Your task to perform on an android device: View the shopping cart on target.com. Search for "razer kraken" on target.com, select the first entry, add it to the cart, then select checkout. Image 0: 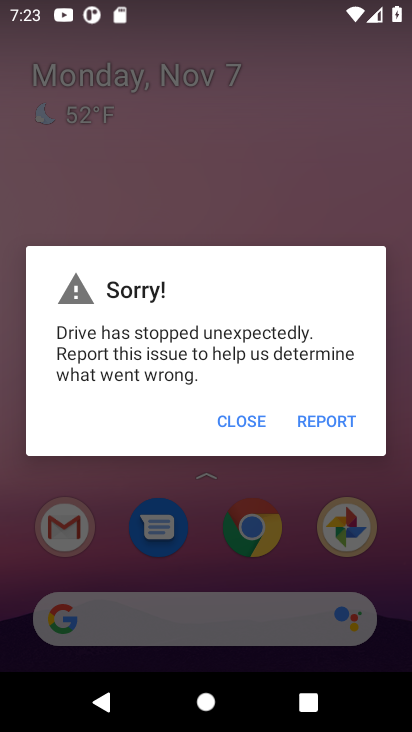
Step 0: click (252, 414)
Your task to perform on an android device: View the shopping cart on target.com. Search for "razer kraken" on target.com, select the first entry, add it to the cart, then select checkout. Image 1: 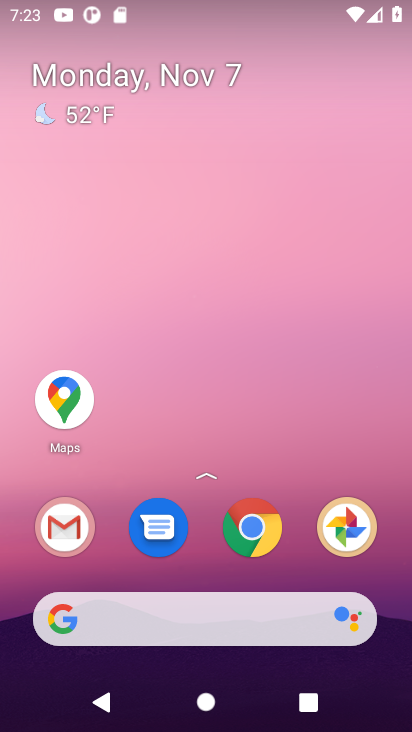
Step 1: click (280, 535)
Your task to perform on an android device: View the shopping cart on target.com. Search for "razer kraken" on target.com, select the first entry, add it to the cart, then select checkout. Image 2: 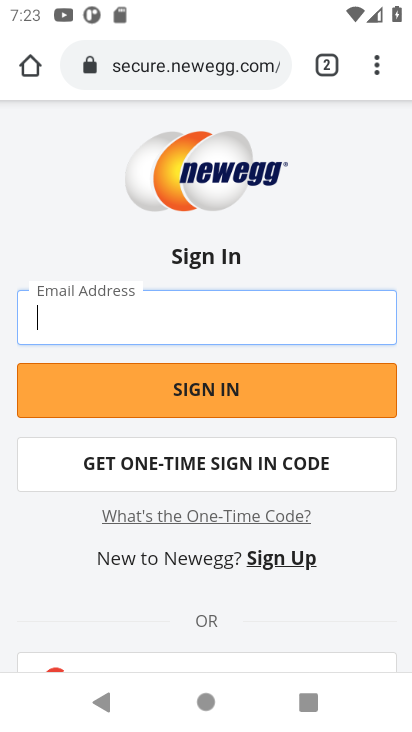
Step 2: click (213, 64)
Your task to perform on an android device: View the shopping cart on target.com. Search for "razer kraken" on target.com, select the first entry, add it to the cart, then select checkout. Image 3: 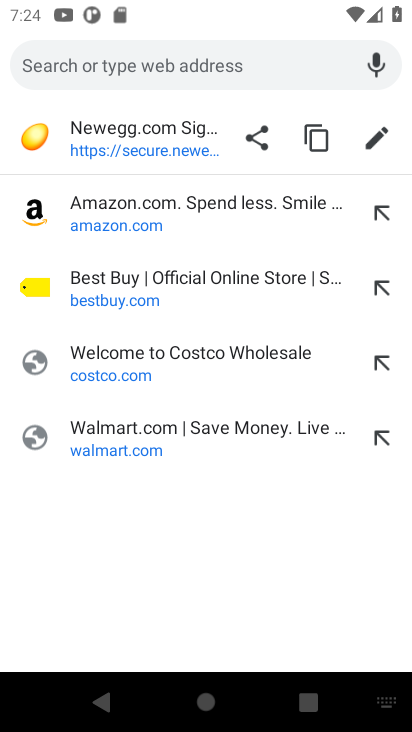
Step 3: type "arget.com"
Your task to perform on an android device: View the shopping cart on target.com. Search for "razer kraken" on target.com, select the first entry, add it to the cart, then select checkout. Image 4: 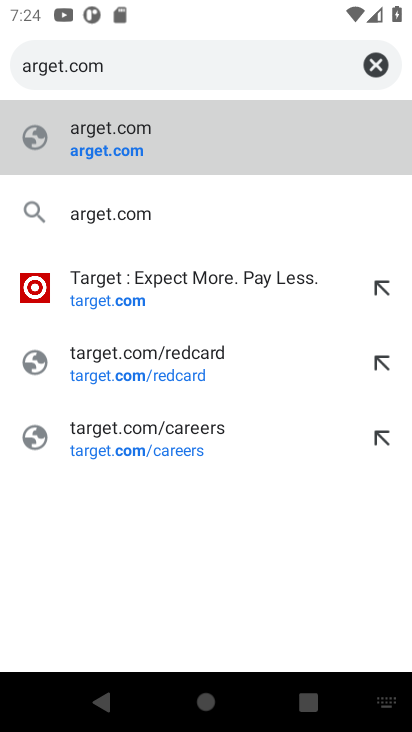
Step 4: click (111, 292)
Your task to perform on an android device: View the shopping cart on target.com. Search for "razer kraken" on target.com, select the first entry, add it to the cart, then select checkout. Image 5: 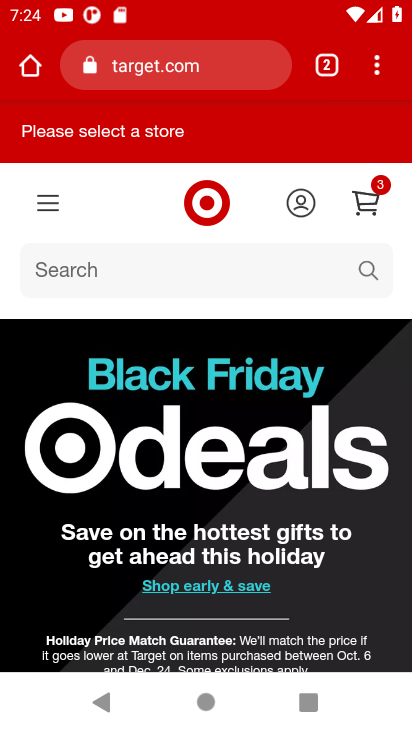
Step 5: click (206, 276)
Your task to perform on an android device: View the shopping cart on target.com. Search for "razer kraken" on target.com, select the first entry, add it to the cart, then select checkout. Image 6: 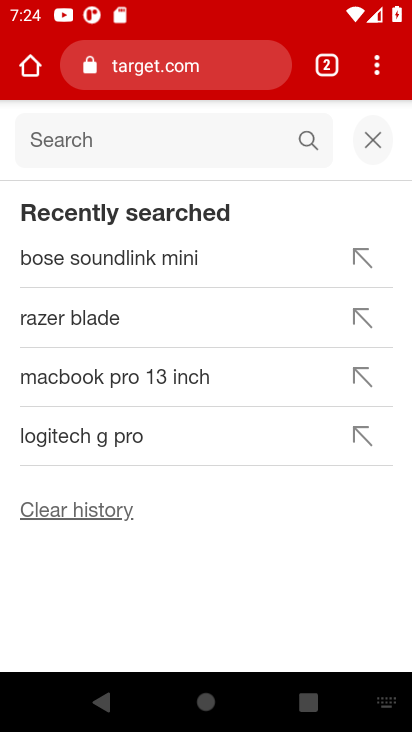
Step 6: type "razer kraken"
Your task to perform on an android device: View the shopping cart on target.com. Search for "razer kraken" on target.com, select the first entry, add it to the cart, then select checkout. Image 7: 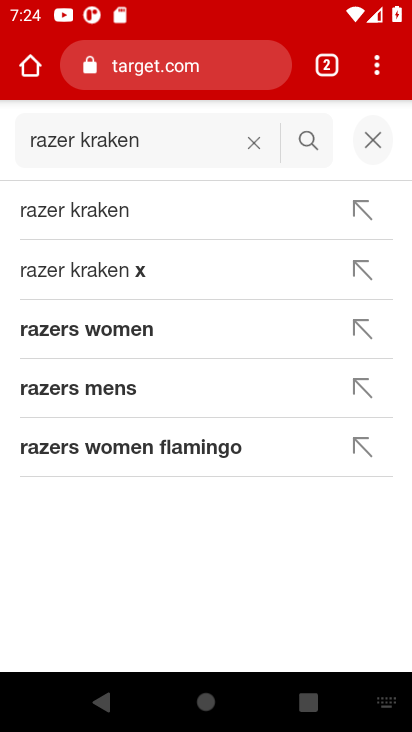
Step 7: press enter
Your task to perform on an android device: View the shopping cart on target.com. Search for "razer kraken" on target.com, select the first entry, add it to the cart, then select checkout. Image 8: 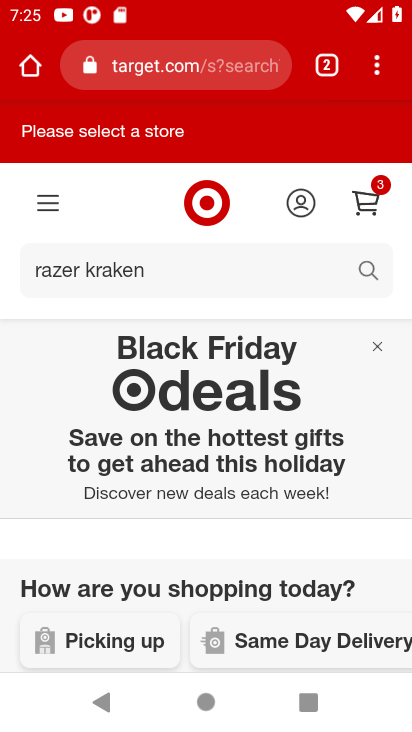
Step 8: drag from (211, 518) to (164, 67)
Your task to perform on an android device: View the shopping cart on target.com. Search for "razer kraken" on target.com, select the first entry, add it to the cart, then select checkout. Image 9: 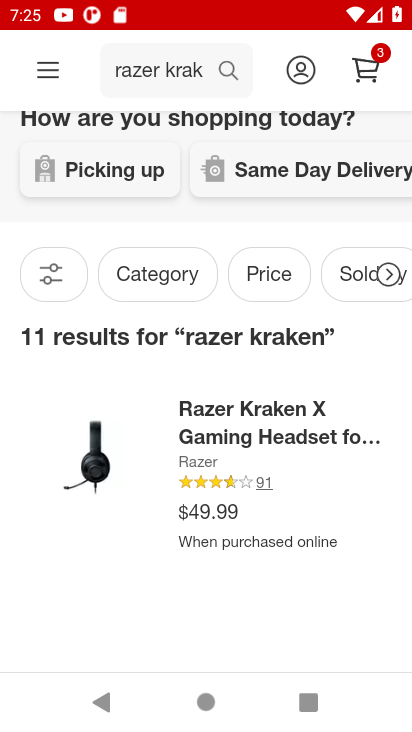
Step 9: click (134, 507)
Your task to perform on an android device: View the shopping cart on target.com. Search for "razer kraken" on target.com, select the first entry, add it to the cart, then select checkout. Image 10: 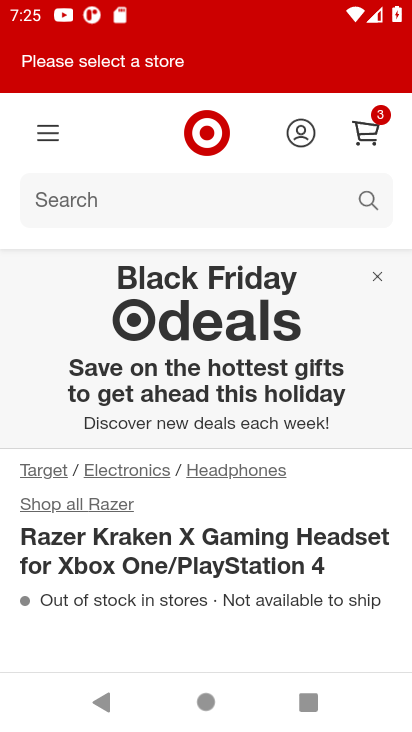
Step 10: drag from (305, 573) to (218, 175)
Your task to perform on an android device: View the shopping cart on target.com. Search for "razer kraken" on target.com, select the first entry, add it to the cart, then select checkout. Image 11: 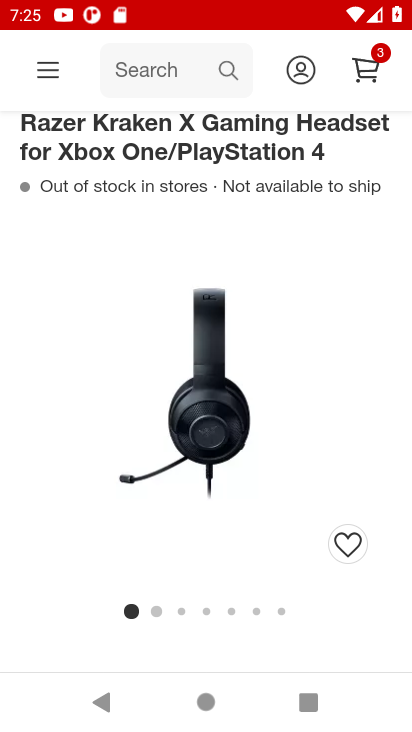
Step 11: drag from (256, 628) to (202, 259)
Your task to perform on an android device: View the shopping cart on target.com. Search for "razer kraken" on target.com, select the first entry, add it to the cart, then select checkout. Image 12: 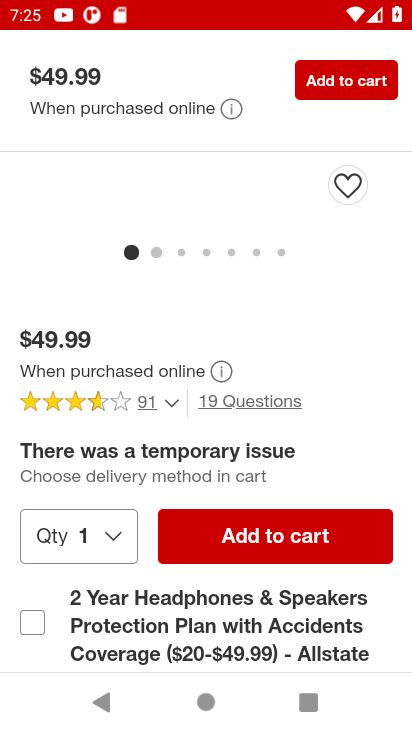
Step 12: click (278, 530)
Your task to perform on an android device: View the shopping cart on target.com. Search for "razer kraken" on target.com, select the first entry, add it to the cart, then select checkout. Image 13: 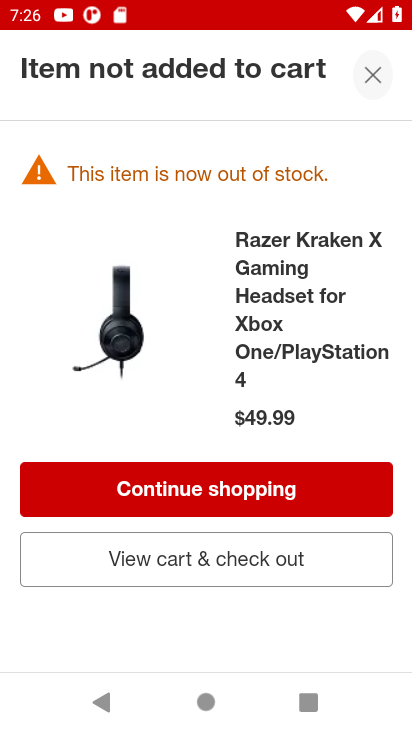
Step 13: click (212, 568)
Your task to perform on an android device: View the shopping cart on target.com. Search for "razer kraken" on target.com, select the first entry, add it to the cart, then select checkout. Image 14: 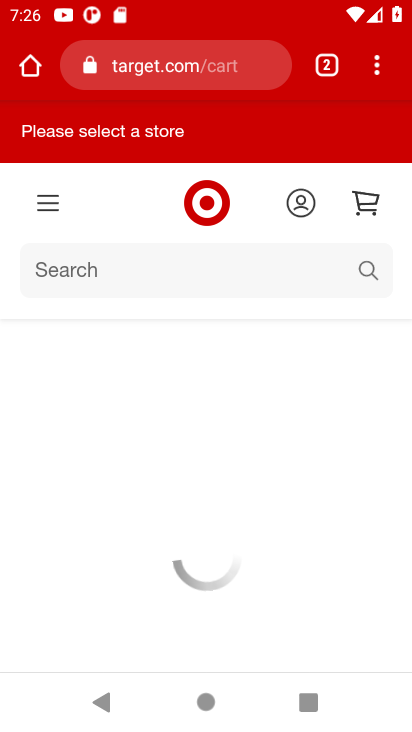
Step 14: task complete